Your task to perform on an android device: stop showing notifications on the lock screen Image 0: 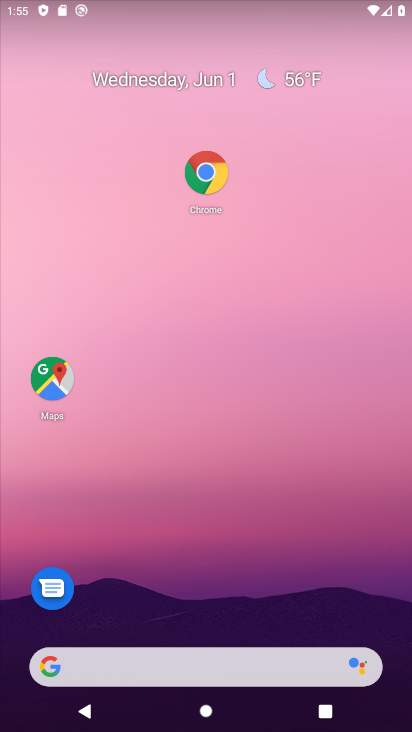
Step 0: drag from (252, 569) to (215, 116)
Your task to perform on an android device: stop showing notifications on the lock screen Image 1: 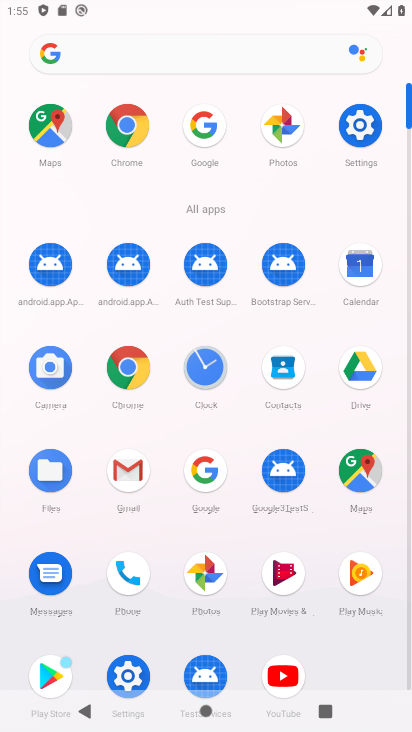
Step 1: click (132, 672)
Your task to perform on an android device: stop showing notifications on the lock screen Image 2: 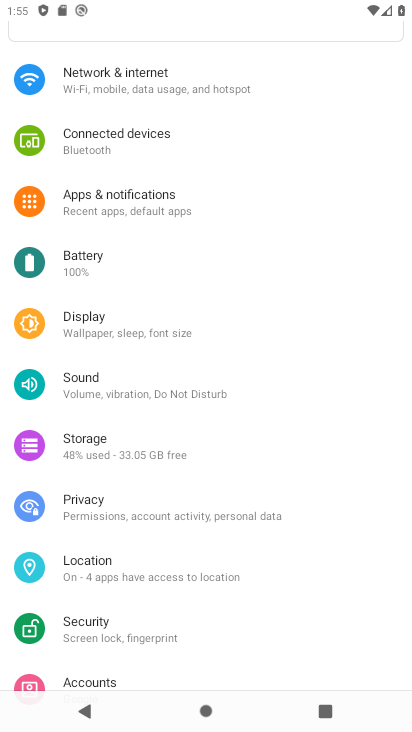
Step 2: click (141, 215)
Your task to perform on an android device: stop showing notifications on the lock screen Image 3: 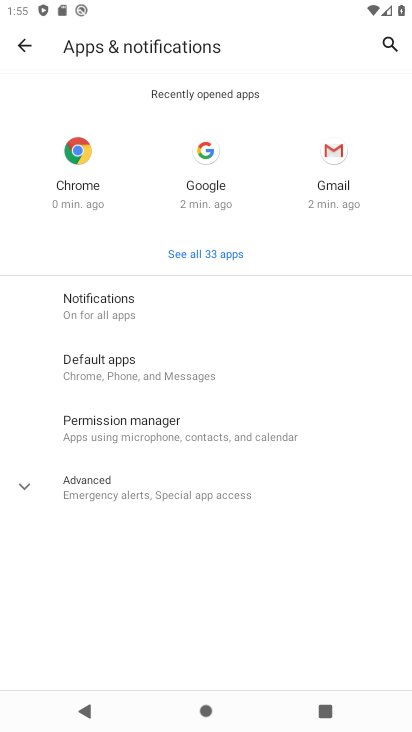
Step 3: click (99, 482)
Your task to perform on an android device: stop showing notifications on the lock screen Image 4: 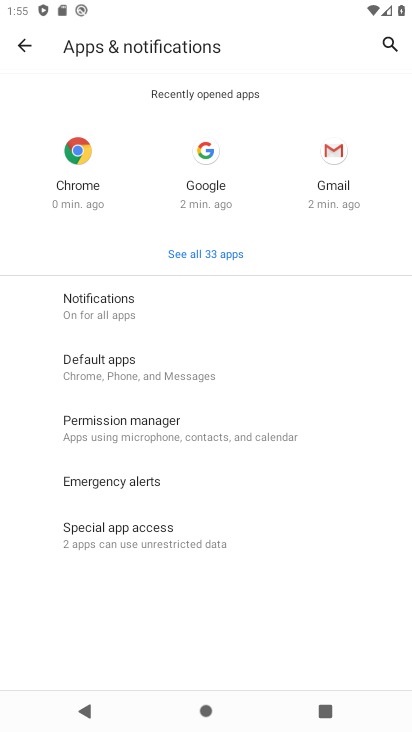
Step 4: click (131, 306)
Your task to perform on an android device: stop showing notifications on the lock screen Image 5: 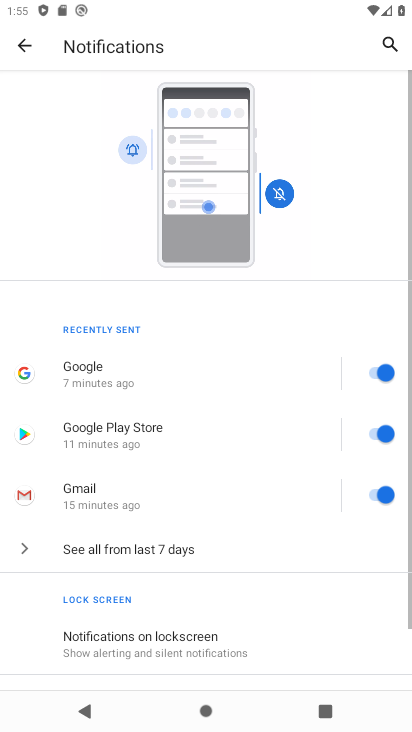
Step 5: drag from (191, 579) to (166, 298)
Your task to perform on an android device: stop showing notifications on the lock screen Image 6: 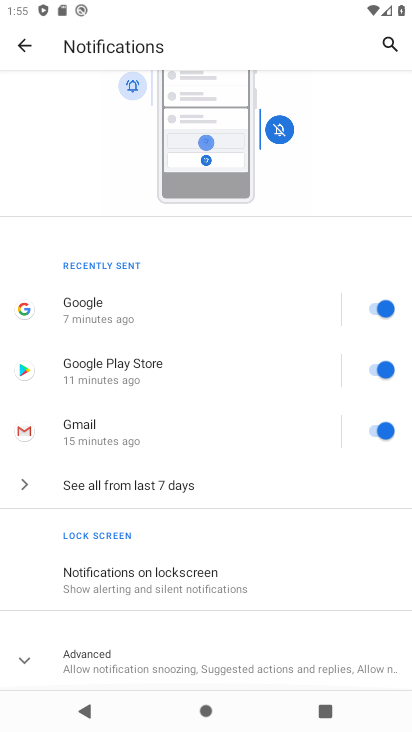
Step 6: click (139, 592)
Your task to perform on an android device: stop showing notifications on the lock screen Image 7: 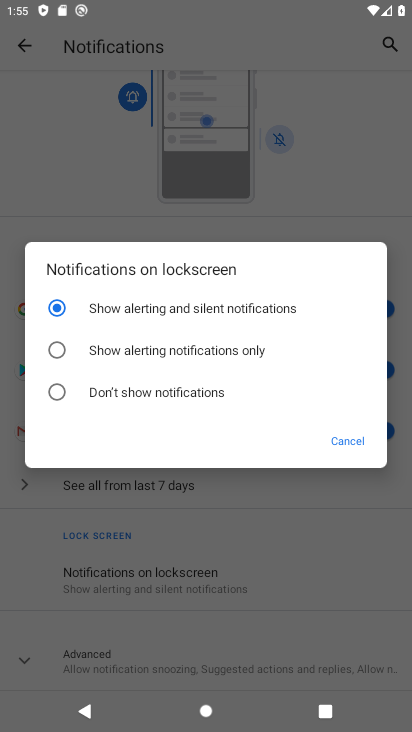
Step 7: click (85, 391)
Your task to perform on an android device: stop showing notifications on the lock screen Image 8: 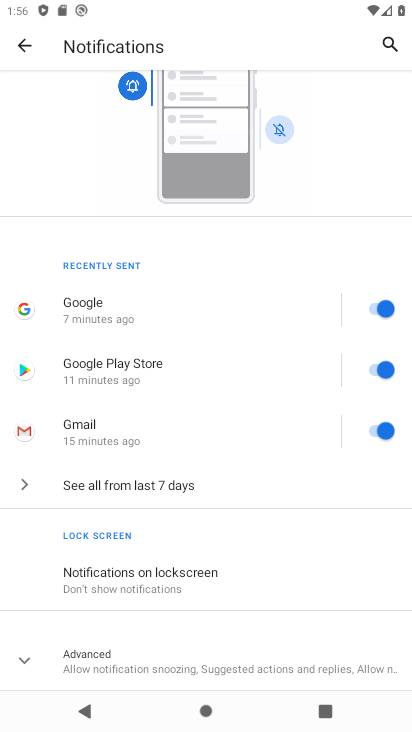
Step 8: task complete